Your task to perform on an android device: Search for jbl charge 4 on amazon.com, select the first entry, add it to the cart, then select checkout. Image 0: 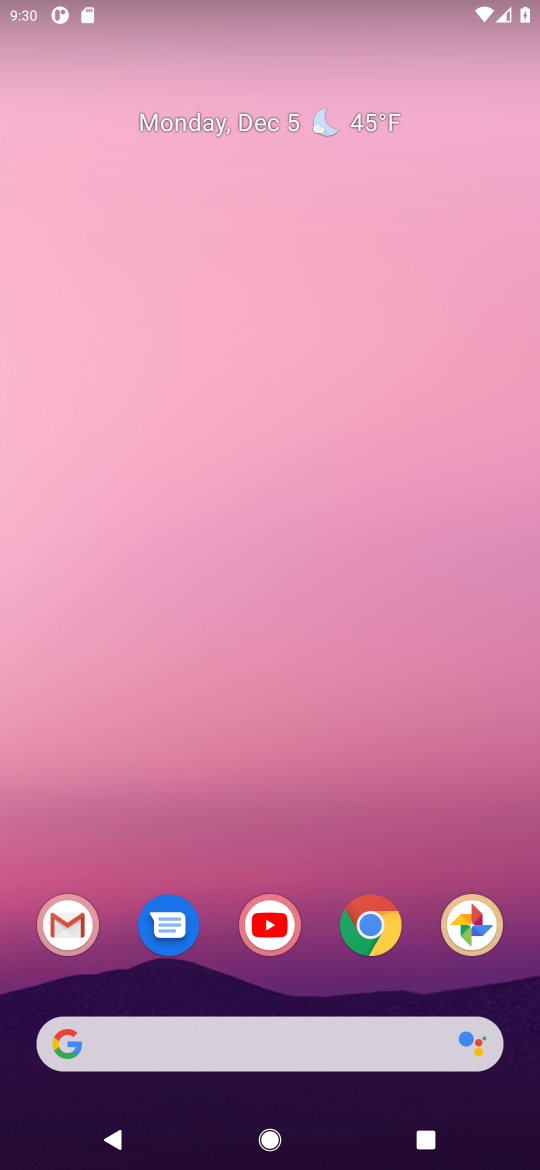
Step 0: click (373, 935)
Your task to perform on an android device: Search for jbl charge 4 on amazon.com, select the first entry, add it to the cart, then select checkout. Image 1: 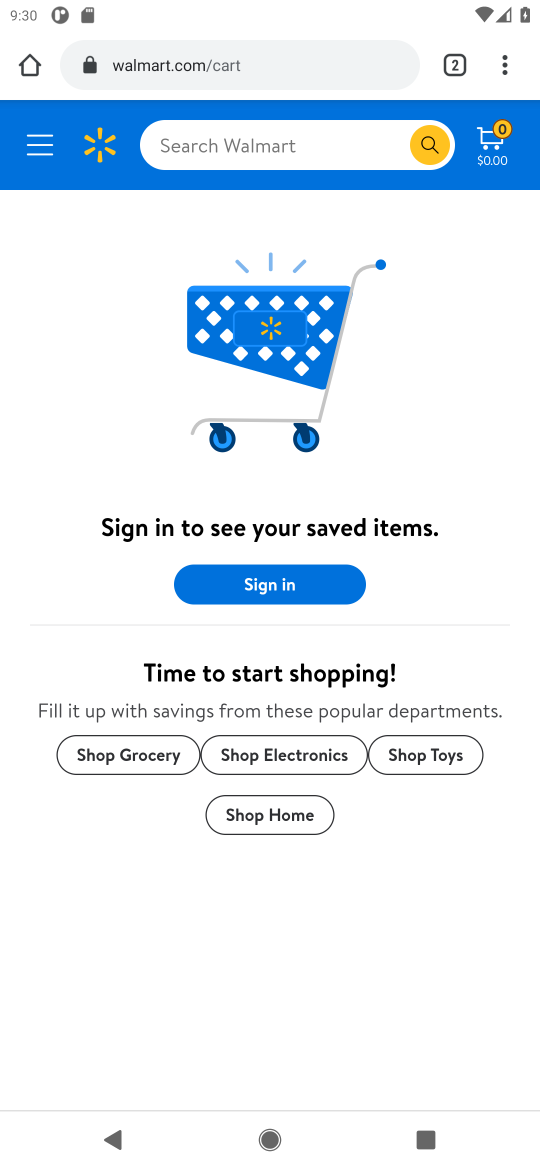
Step 1: click (195, 56)
Your task to perform on an android device: Search for jbl charge 4 on amazon.com, select the first entry, add it to the cart, then select checkout. Image 2: 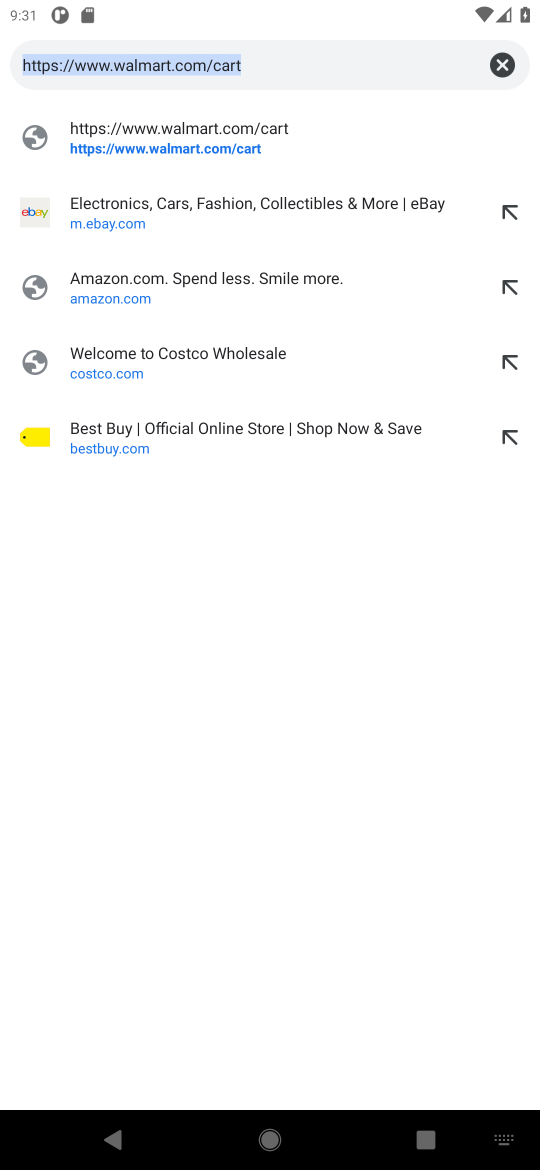
Step 2: click (108, 298)
Your task to perform on an android device: Search for jbl charge 4 on amazon.com, select the first entry, add it to the cart, then select checkout. Image 3: 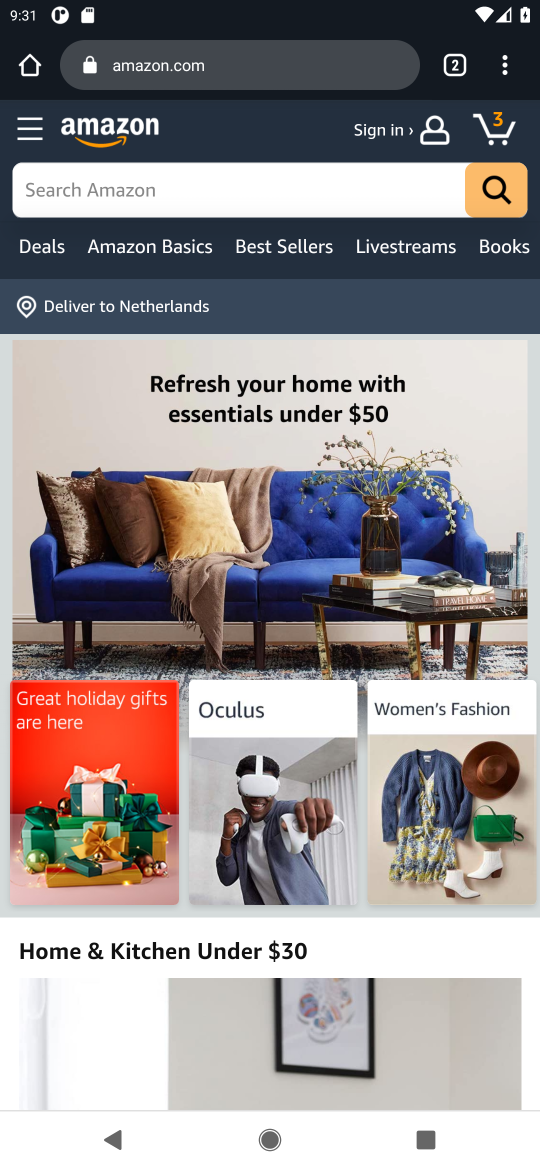
Step 3: click (176, 178)
Your task to perform on an android device: Search for jbl charge 4 on amazon.com, select the first entry, add it to the cart, then select checkout. Image 4: 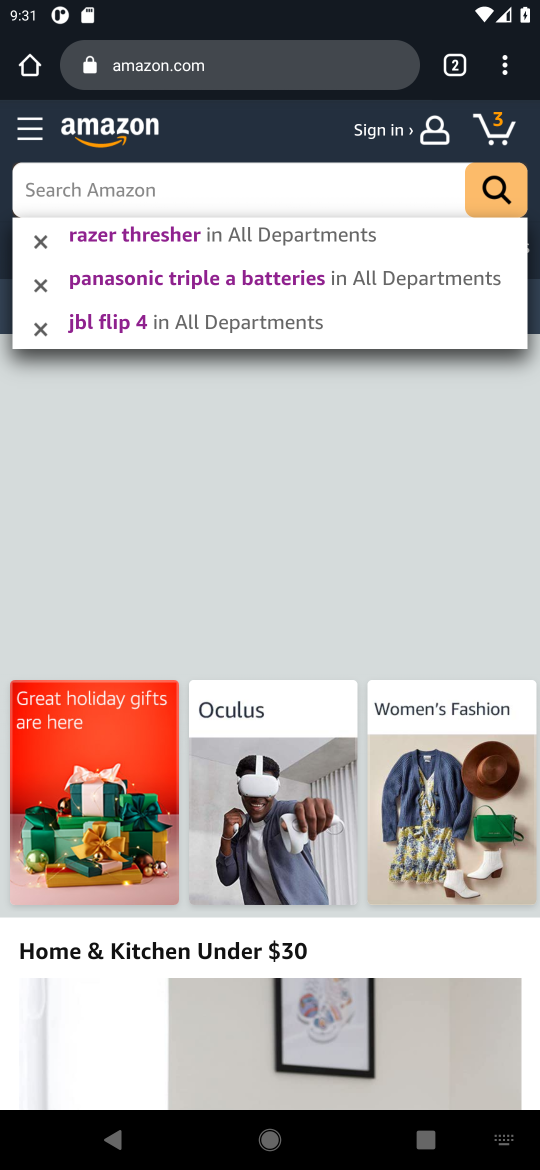
Step 4: type "jbl charge 4"
Your task to perform on an android device: Search for jbl charge 4 on amazon.com, select the first entry, add it to the cart, then select checkout. Image 5: 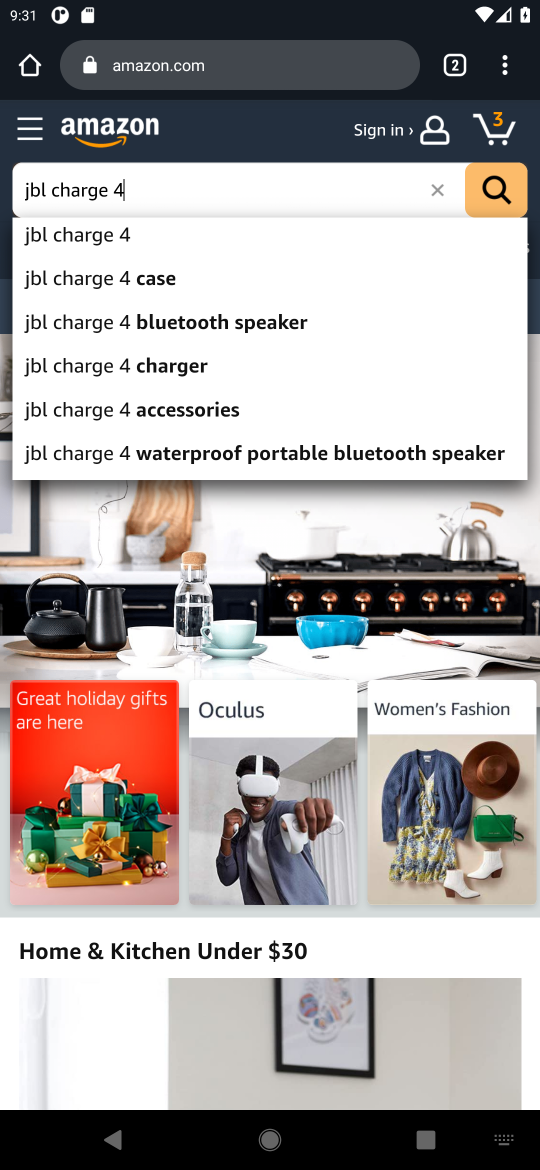
Step 5: click (102, 241)
Your task to perform on an android device: Search for jbl charge 4 on amazon.com, select the first entry, add it to the cart, then select checkout. Image 6: 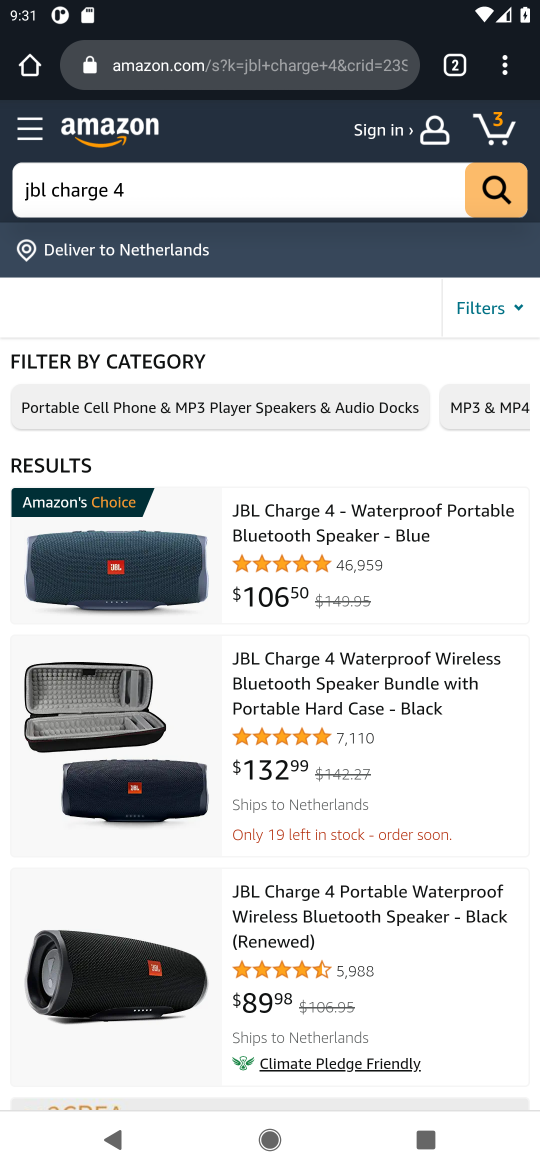
Step 6: click (378, 530)
Your task to perform on an android device: Search for jbl charge 4 on amazon.com, select the first entry, add it to the cart, then select checkout. Image 7: 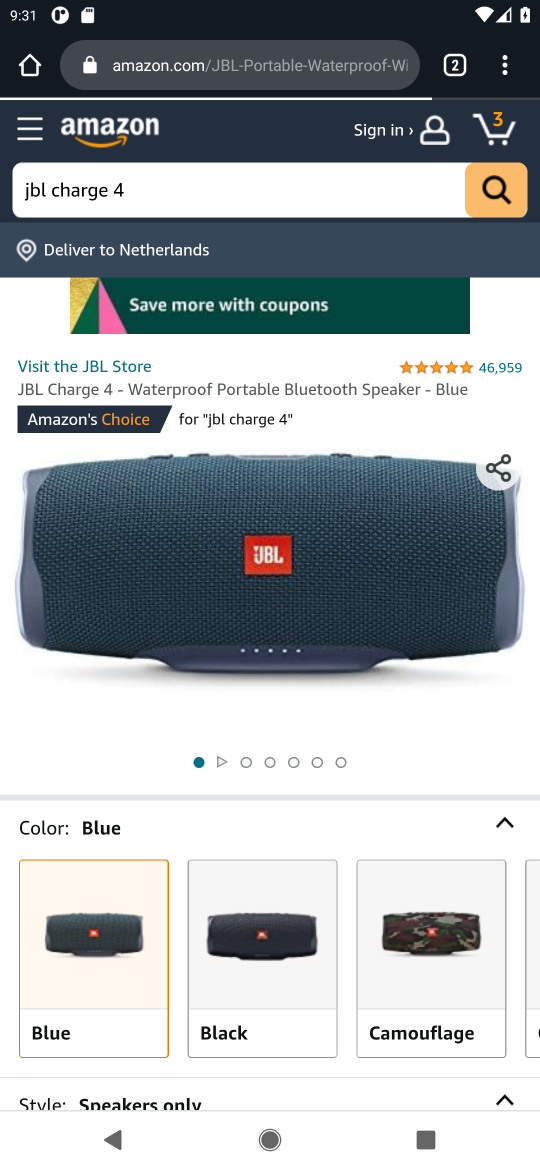
Step 7: task complete